Your task to perform on an android device: Do I have any events today? Image 0: 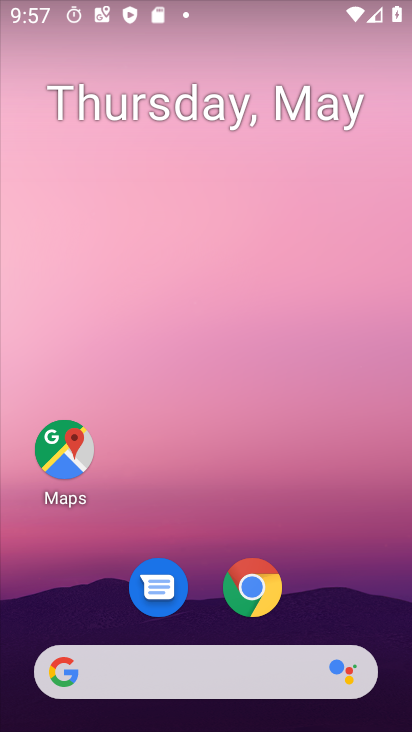
Step 0: drag from (338, 661) to (340, 14)
Your task to perform on an android device: Do I have any events today? Image 1: 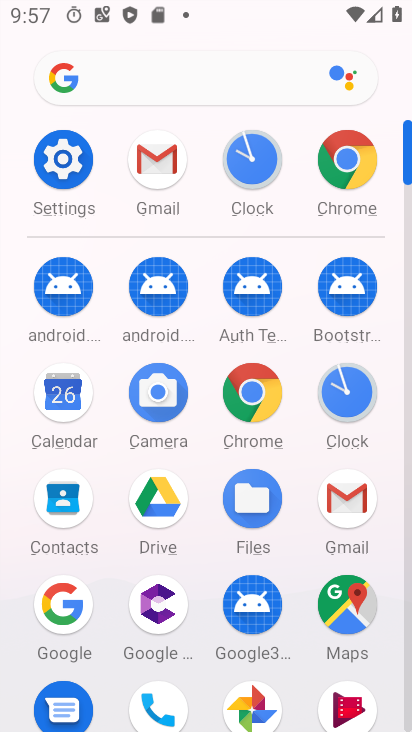
Step 1: click (60, 413)
Your task to perform on an android device: Do I have any events today? Image 2: 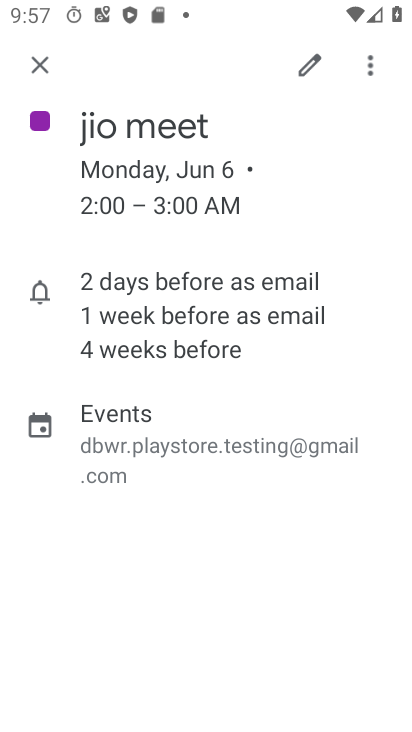
Step 2: click (42, 75)
Your task to perform on an android device: Do I have any events today? Image 3: 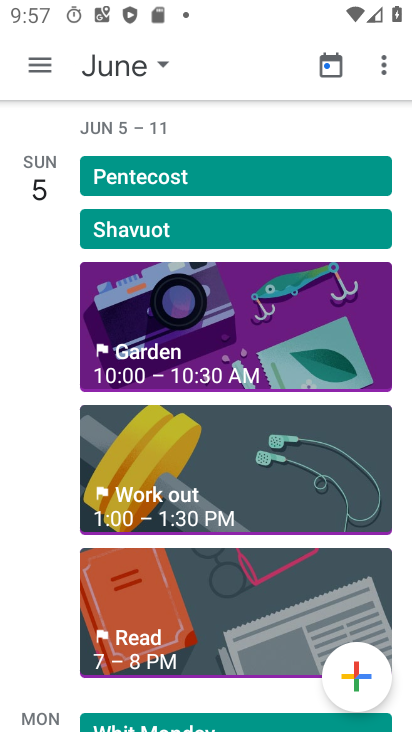
Step 3: click (327, 63)
Your task to perform on an android device: Do I have any events today? Image 4: 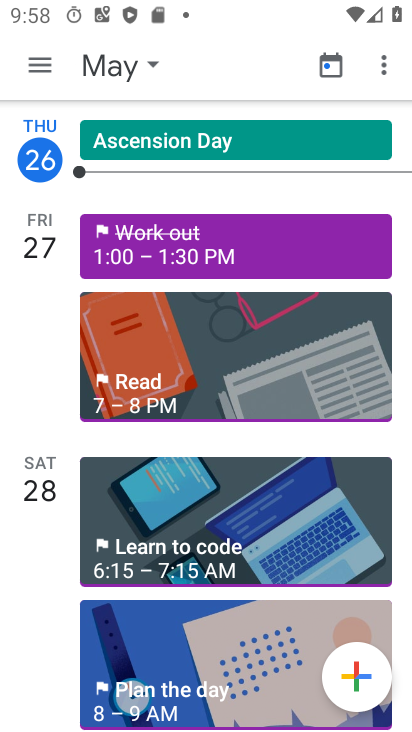
Step 4: drag from (126, 224) to (122, 373)
Your task to perform on an android device: Do I have any events today? Image 5: 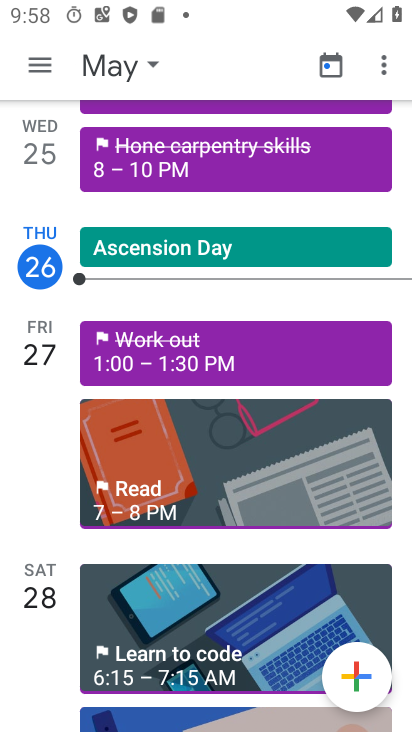
Step 5: click (45, 262)
Your task to perform on an android device: Do I have any events today? Image 6: 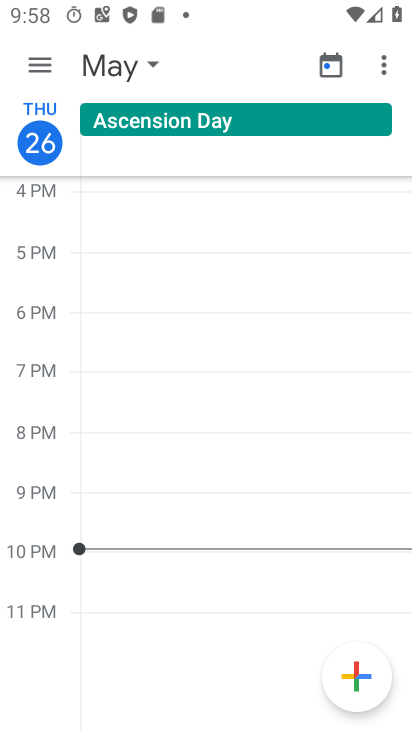
Step 6: task complete